Your task to perform on an android device: turn on data saver in the chrome app Image 0: 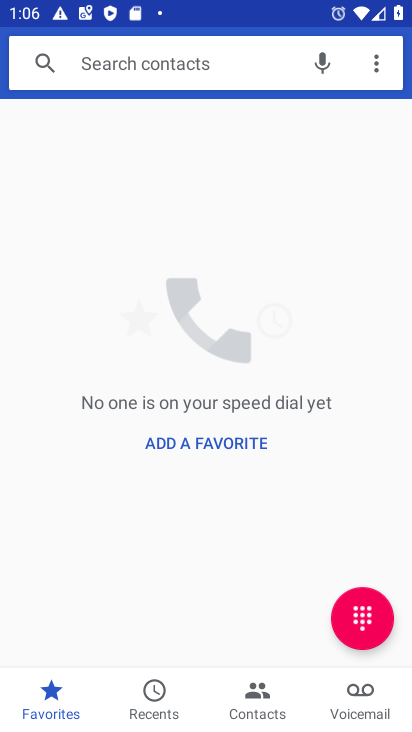
Step 0: press home button
Your task to perform on an android device: turn on data saver in the chrome app Image 1: 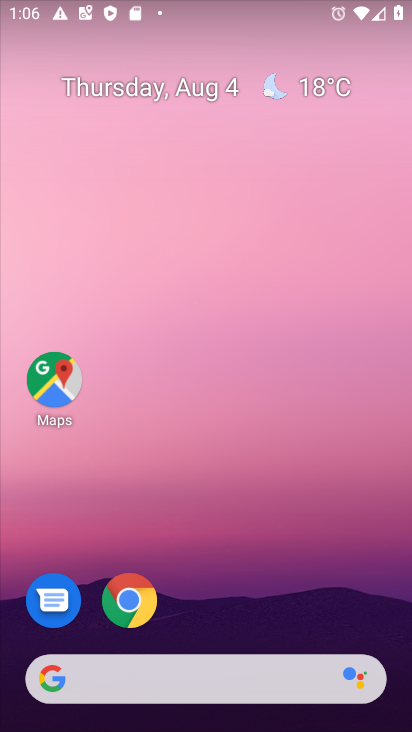
Step 1: click (128, 605)
Your task to perform on an android device: turn on data saver in the chrome app Image 2: 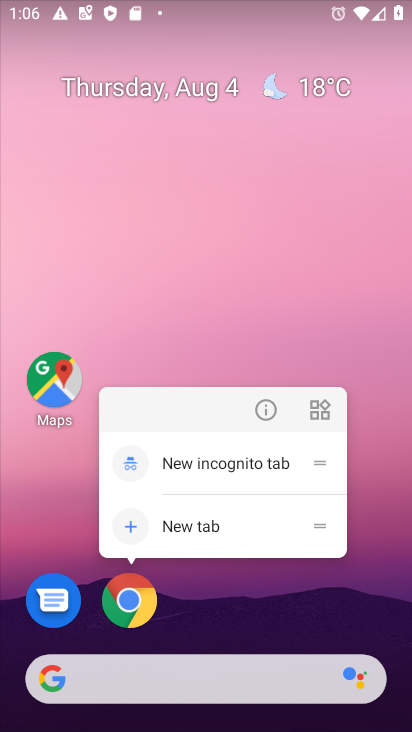
Step 2: click (131, 593)
Your task to perform on an android device: turn on data saver in the chrome app Image 3: 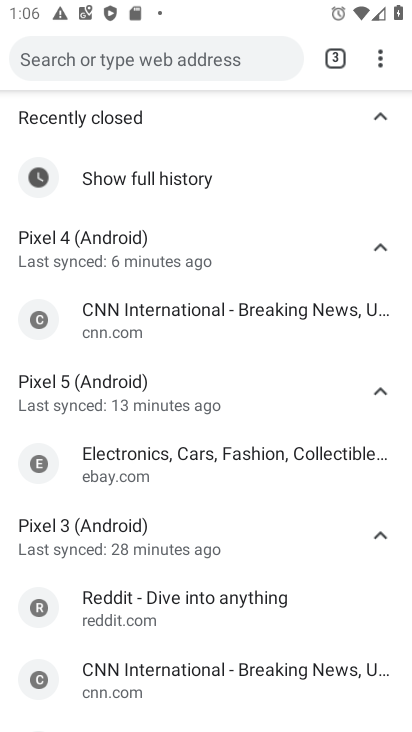
Step 3: drag from (376, 59) to (252, 563)
Your task to perform on an android device: turn on data saver in the chrome app Image 4: 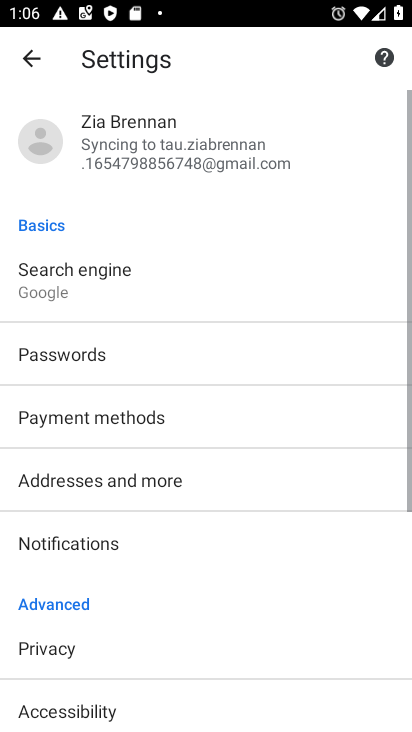
Step 4: drag from (197, 676) to (274, 282)
Your task to perform on an android device: turn on data saver in the chrome app Image 5: 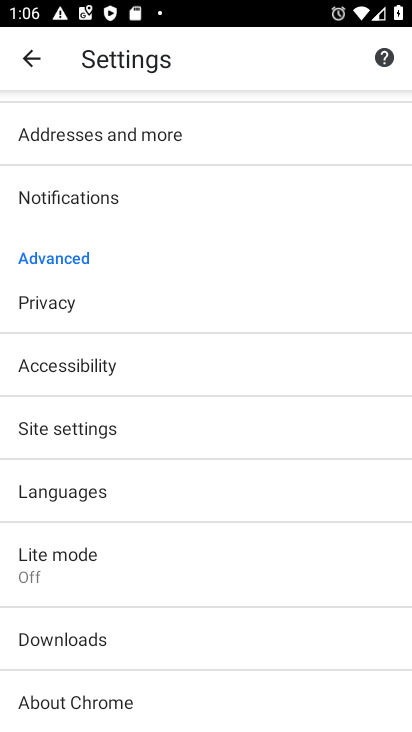
Step 5: click (91, 568)
Your task to perform on an android device: turn on data saver in the chrome app Image 6: 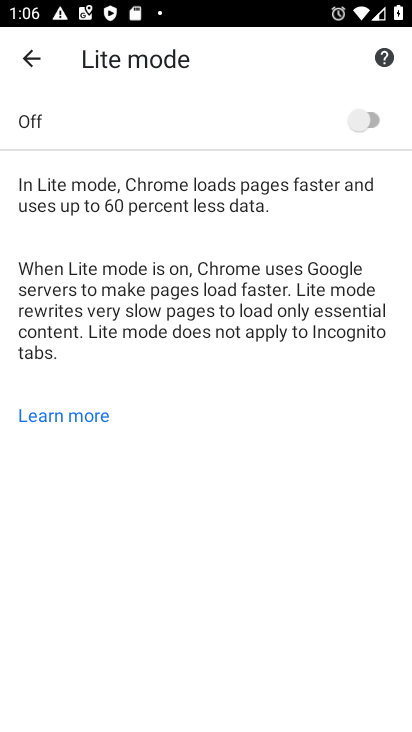
Step 6: click (374, 116)
Your task to perform on an android device: turn on data saver in the chrome app Image 7: 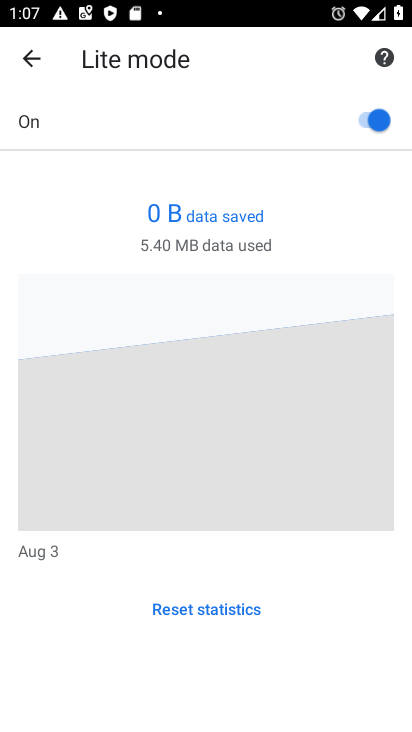
Step 7: task complete